Your task to perform on an android device: turn off translation in the chrome app Image 0: 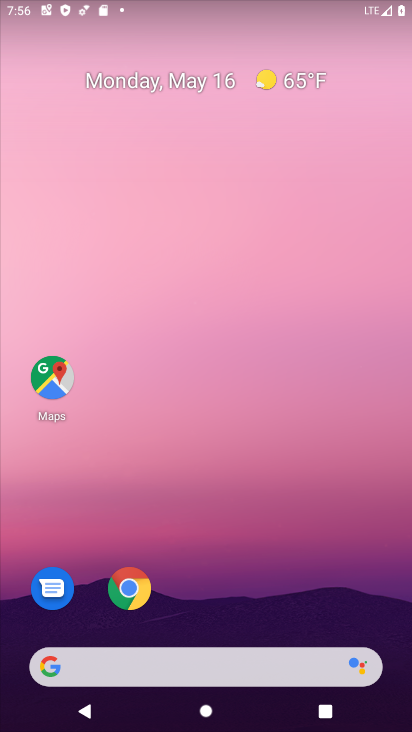
Step 0: drag from (245, 568) to (209, 42)
Your task to perform on an android device: turn off translation in the chrome app Image 1: 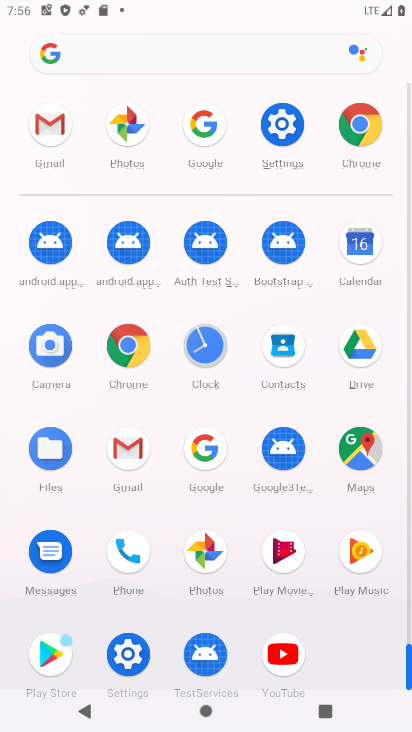
Step 1: drag from (17, 545) to (26, 215)
Your task to perform on an android device: turn off translation in the chrome app Image 2: 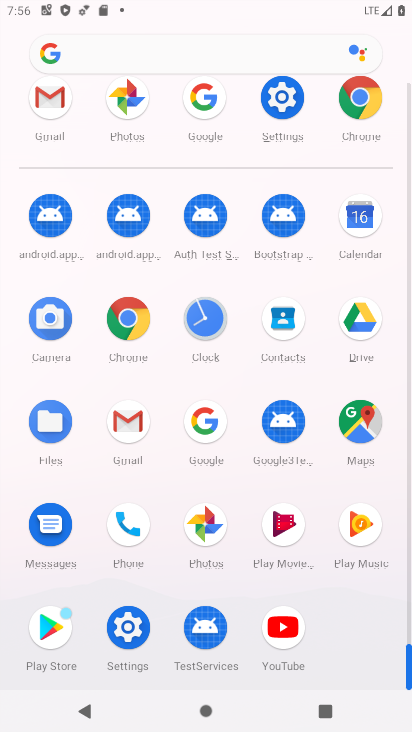
Step 2: click (125, 315)
Your task to perform on an android device: turn off translation in the chrome app Image 3: 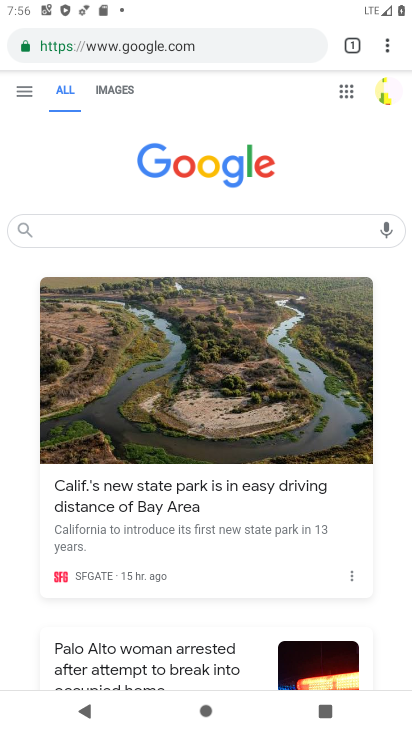
Step 3: task complete